Your task to perform on an android device: turn off notifications in google photos Image 0: 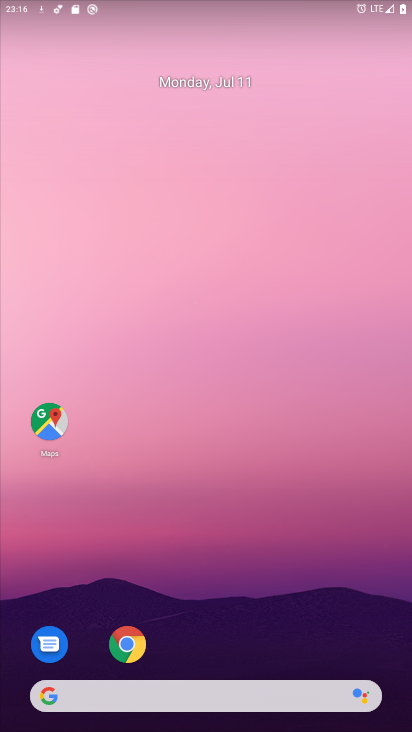
Step 0: drag from (257, 622) to (228, 367)
Your task to perform on an android device: turn off notifications in google photos Image 1: 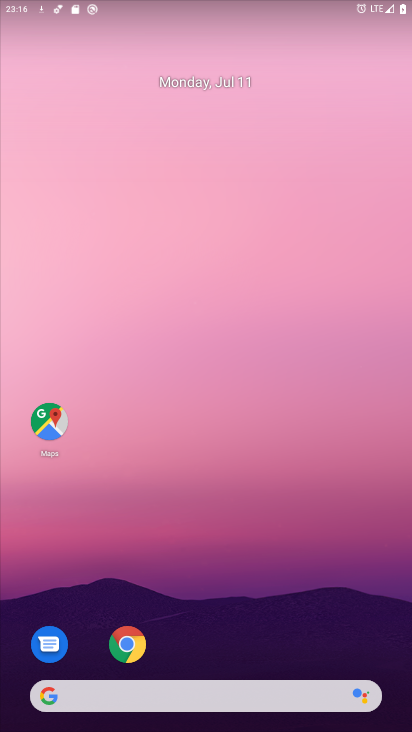
Step 1: drag from (208, 548) to (200, 171)
Your task to perform on an android device: turn off notifications in google photos Image 2: 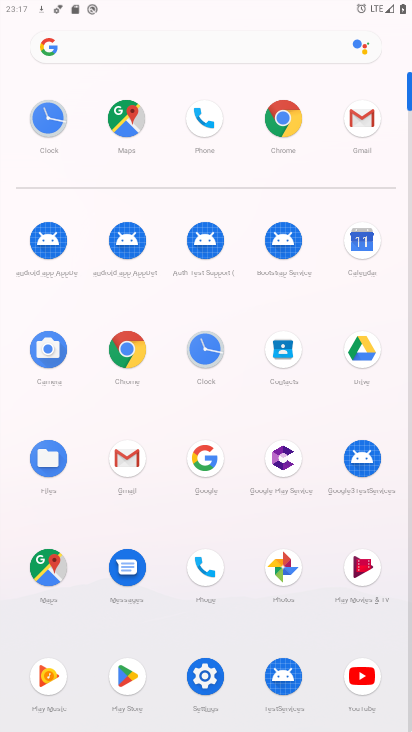
Step 2: click (290, 570)
Your task to perform on an android device: turn off notifications in google photos Image 3: 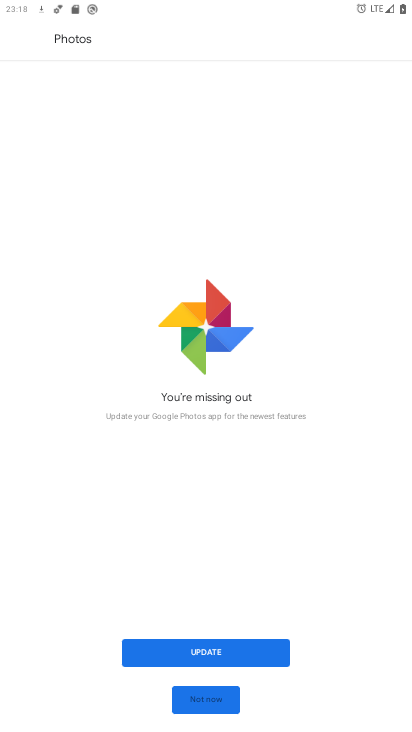
Step 3: click (177, 691)
Your task to perform on an android device: turn off notifications in google photos Image 4: 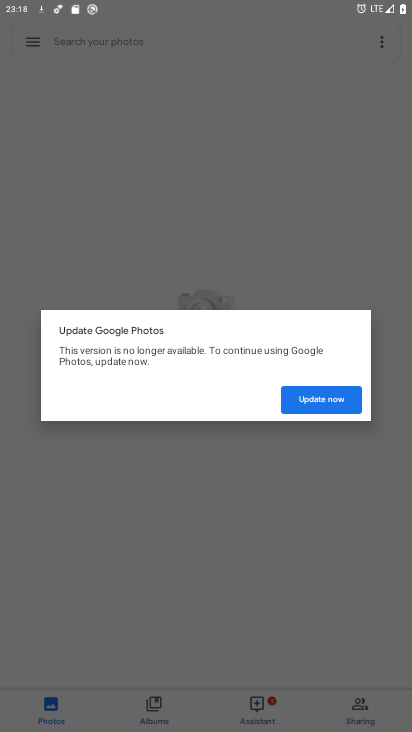
Step 4: click (324, 389)
Your task to perform on an android device: turn off notifications in google photos Image 5: 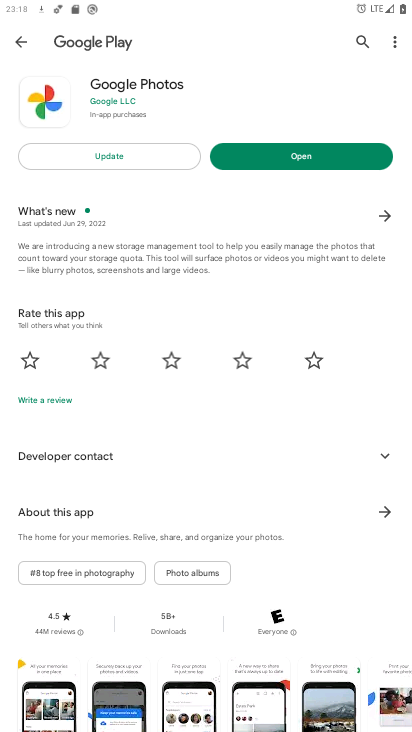
Step 5: click (23, 16)
Your task to perform on an android device: turn off notifications in google photos Image 6: 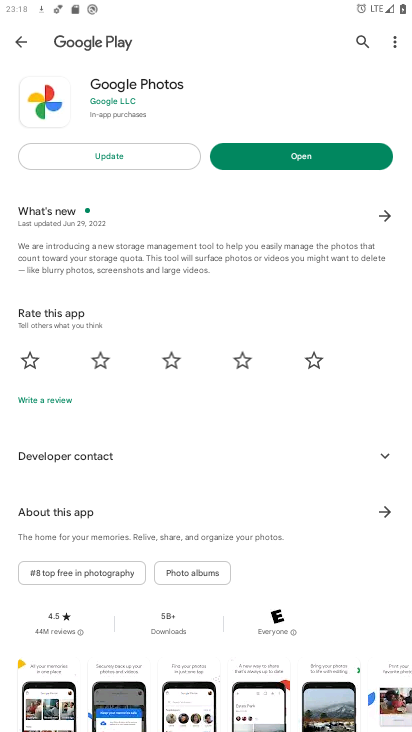
Step 6: click (27, 43)
Your task to perform on an android device: turn off notifications in google photos Image 7: 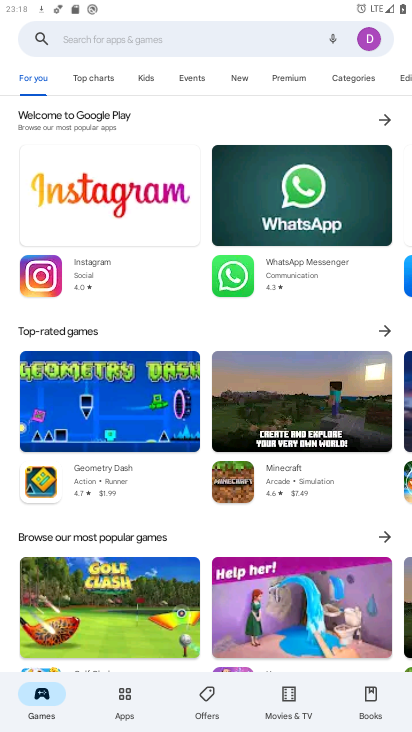
Step 7: press home button
Your task to perform on an android device: turn off notifications in google photos Image 8: 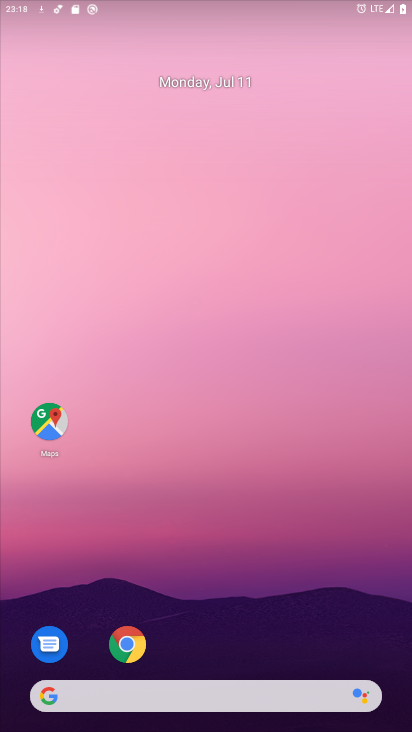
Step 8: drag from (164, 592) to (185, 469)
Your task to perform on an android device: turn off notifications in google photos Image 9: 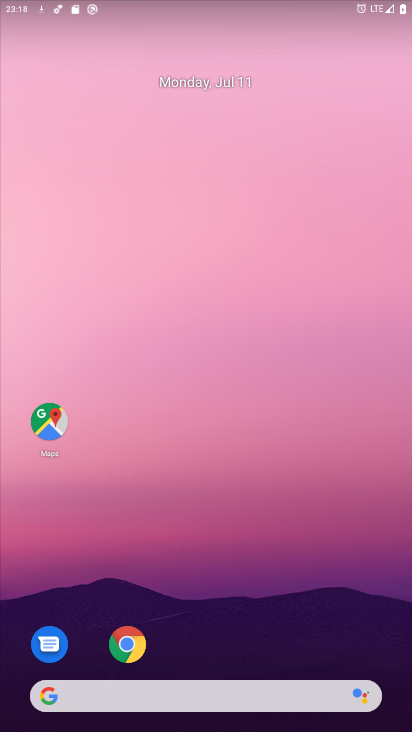
Step 9: drag from (172, 689) to (188, 422)
Your task to perform on an android device: turn off notifications in google photos Image 10: 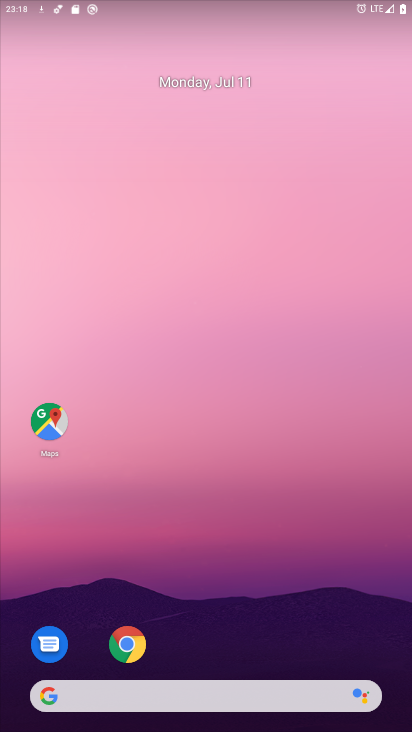
Step 10: drag from (231, 600) to (231, 260)
Your task to perform on an android device: turn off notifications in google photos Image 11: 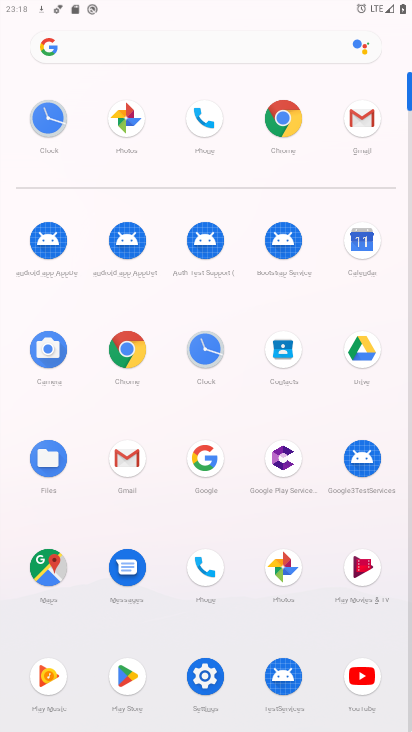
Step 11: click (270, 563)
Your task to perform on an android device: turn off notifications in google photos Image 12: 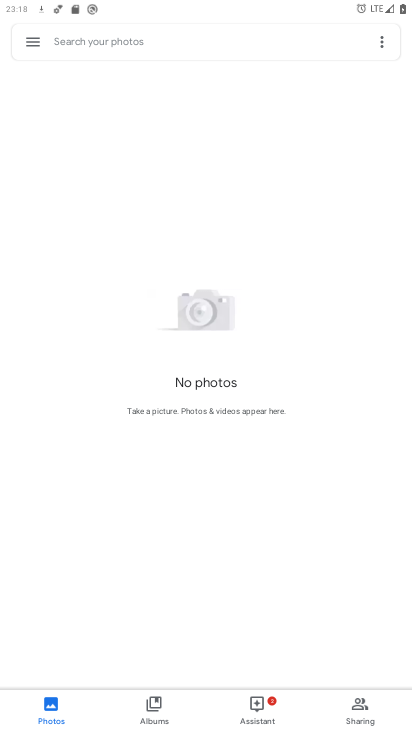
Step 12: click (48, 34)
Your task to perform on an android device: turn off notifications in google photos Image 13: 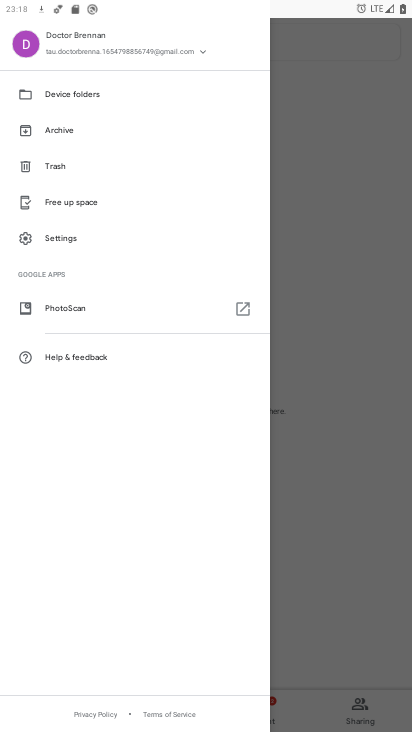
Step 13: click (72, 239)
Your task to perform on an android device: turn off notifications in google photos Image 14: 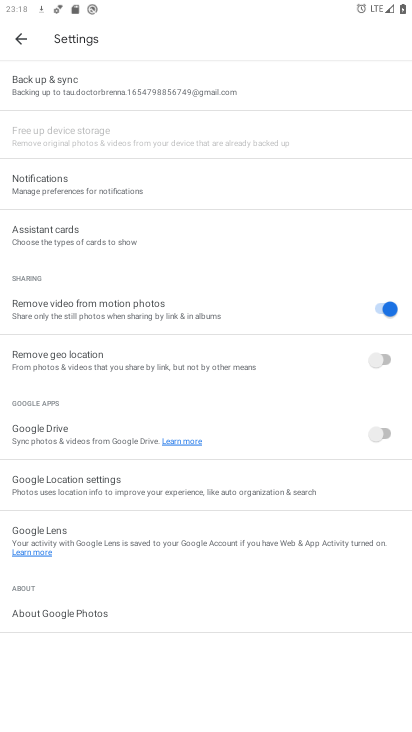
Step 14: click (113, 176)
Your task to perform on an android device: turn off notifications in google photos Image 15: 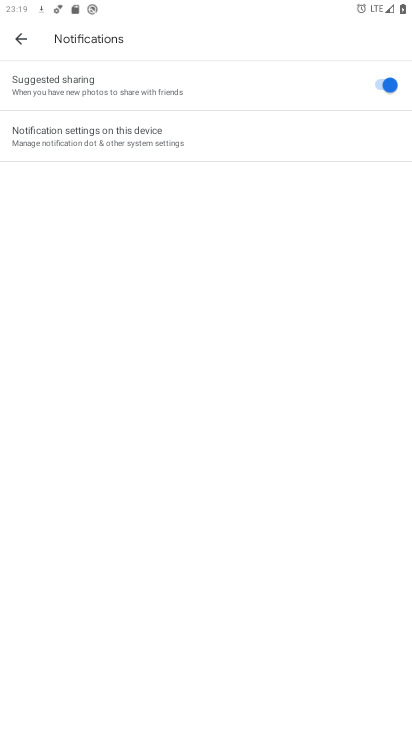
Step 15: click (92, 121)
Your task to perform on an android device: turn off notifications in google photos Image 16: 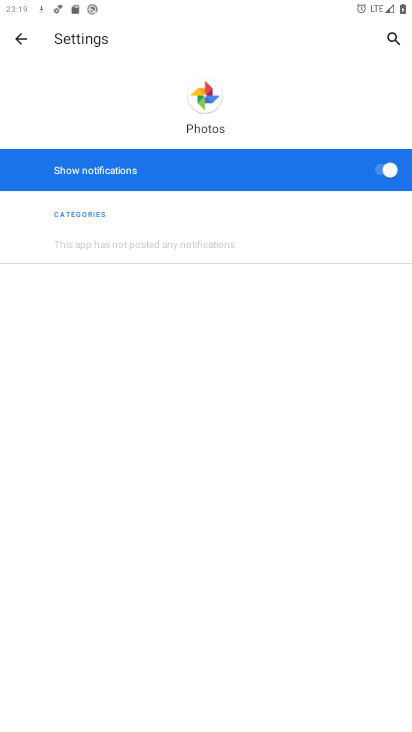
Step 16: click (396, 161)
Your task to perform on an android device: turn off notifications in google photos Image 17: 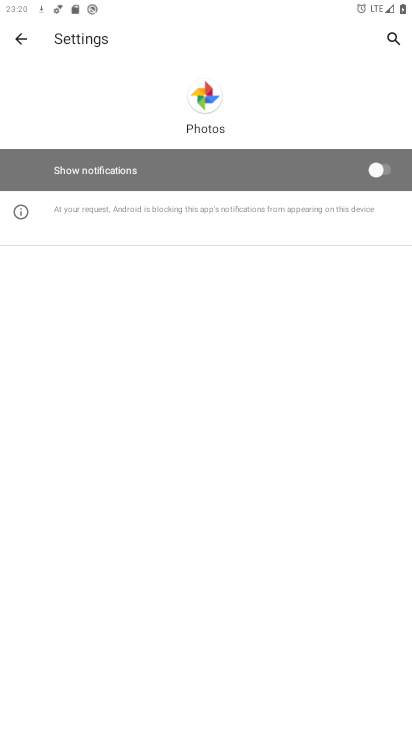
Step 17: task complete